Your task to perform on an android device: What's on the menu at Subway? Image 0: 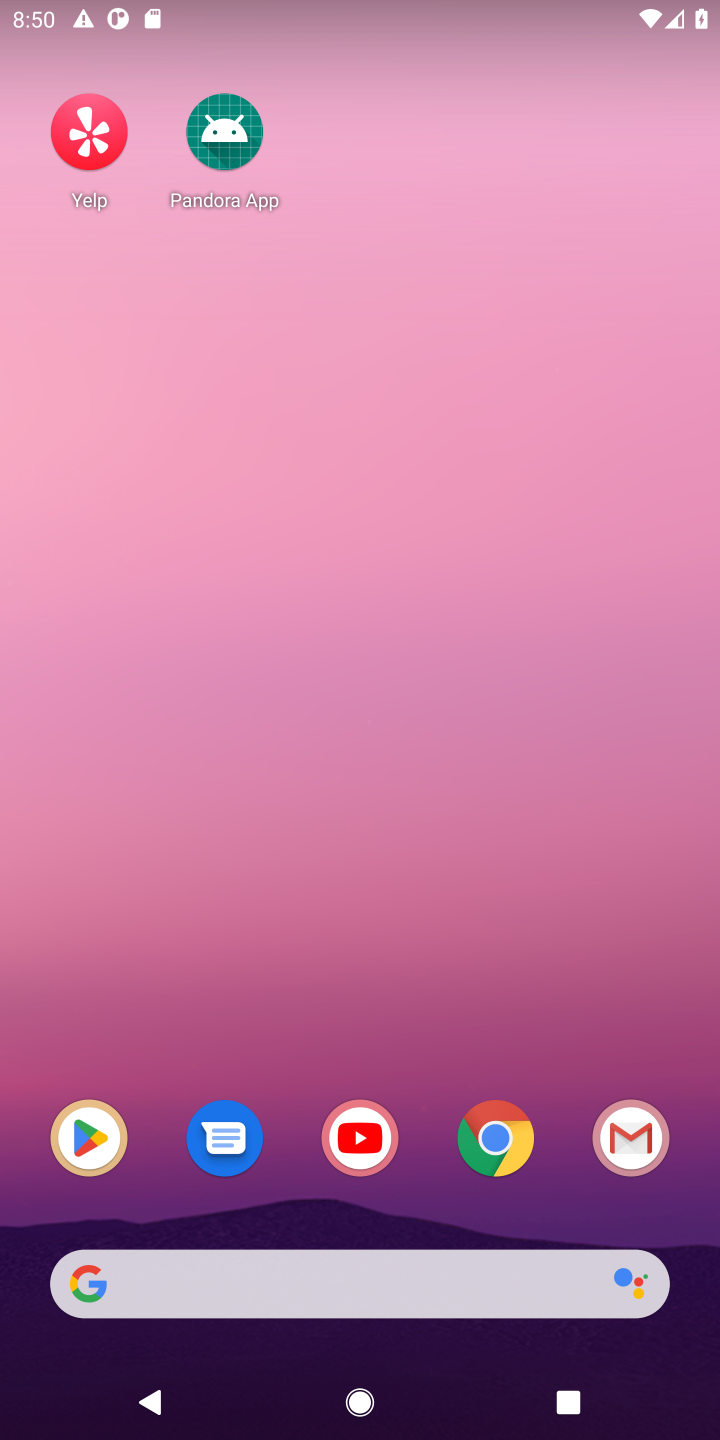
Step 0: click (253, 1288)
Your task to perform on an android device: What's on the menu at Subway? Image 1: 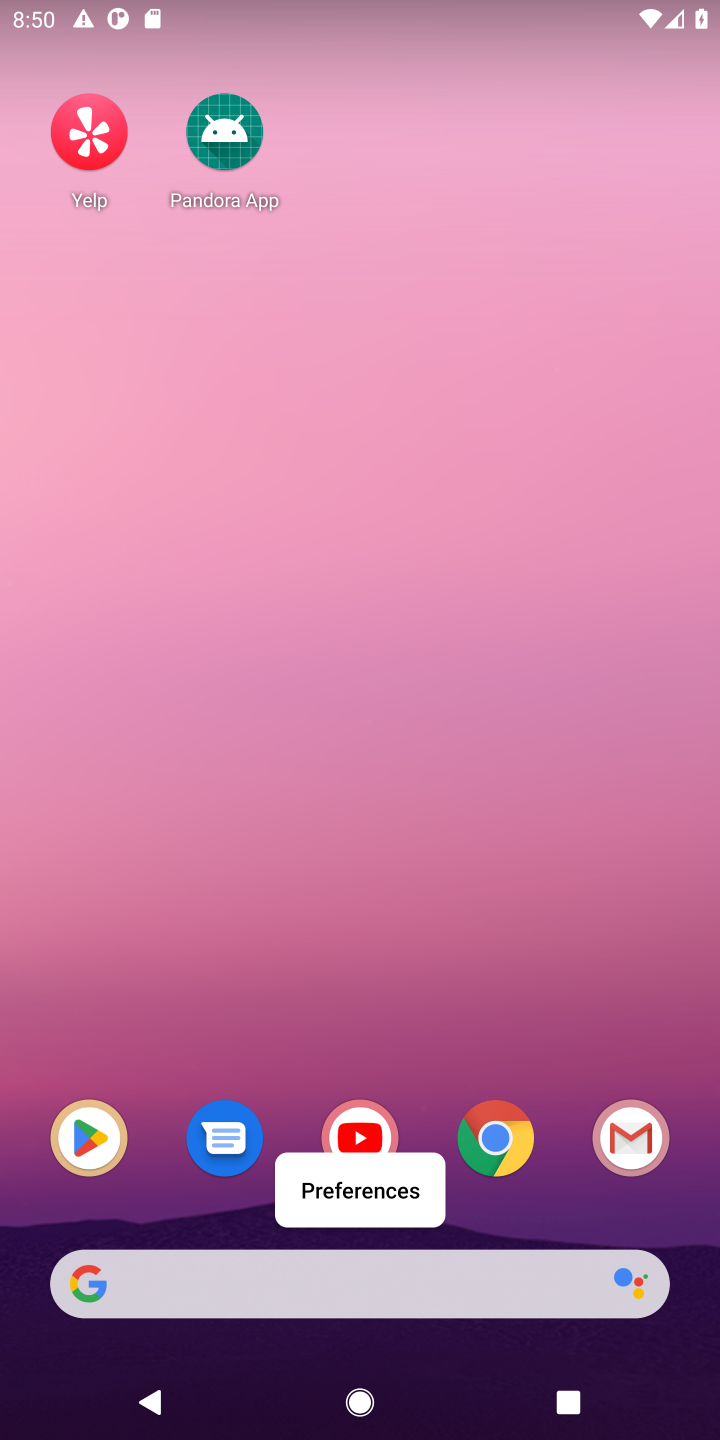
Step 1: click (347, 1284)
Your task to perform on an android device: What's on the menu at Subway? Image 2: 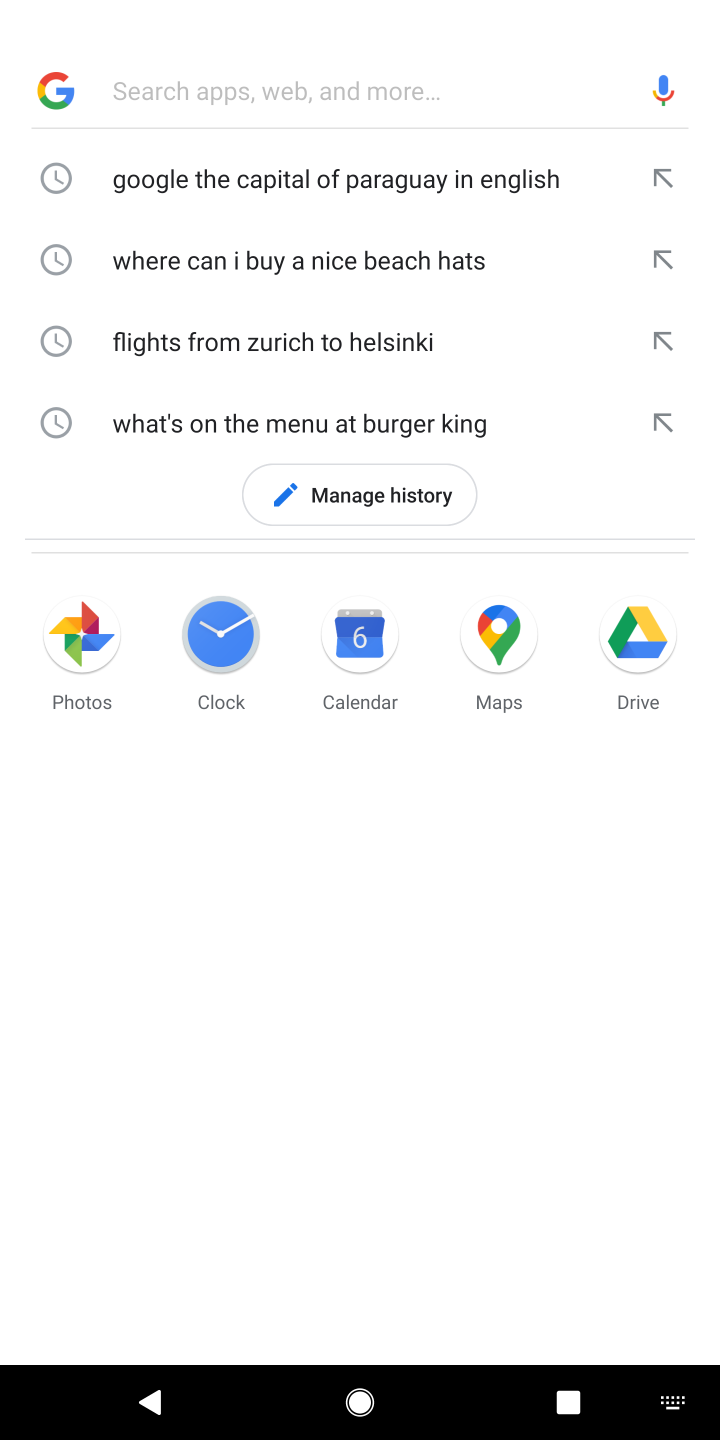
Step 2: type "What's on the menu at Subway"
Your task to perform on an android device: What's on the menu at Subway? Image 3: 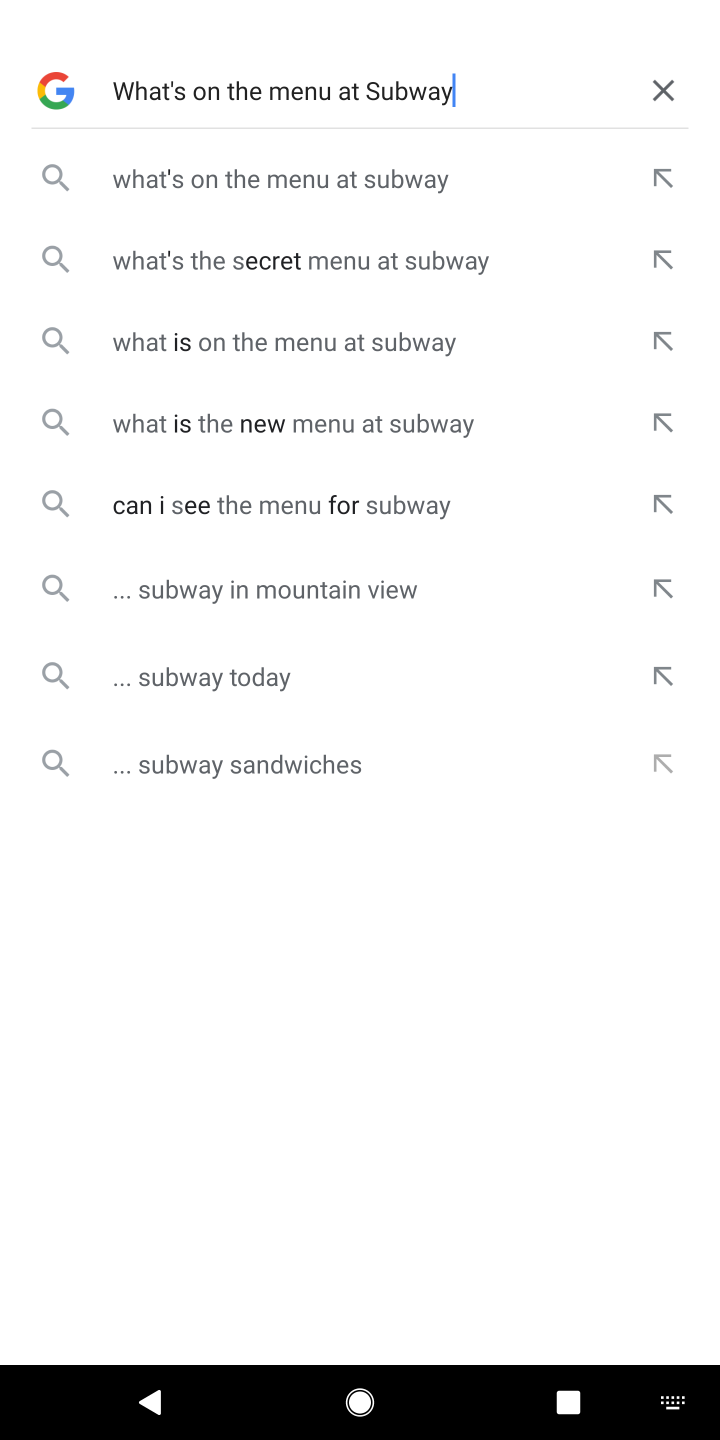
Step 3: click (352, 173)
Your task to perform on an android device: What's on the menu at Subway? Image 4: 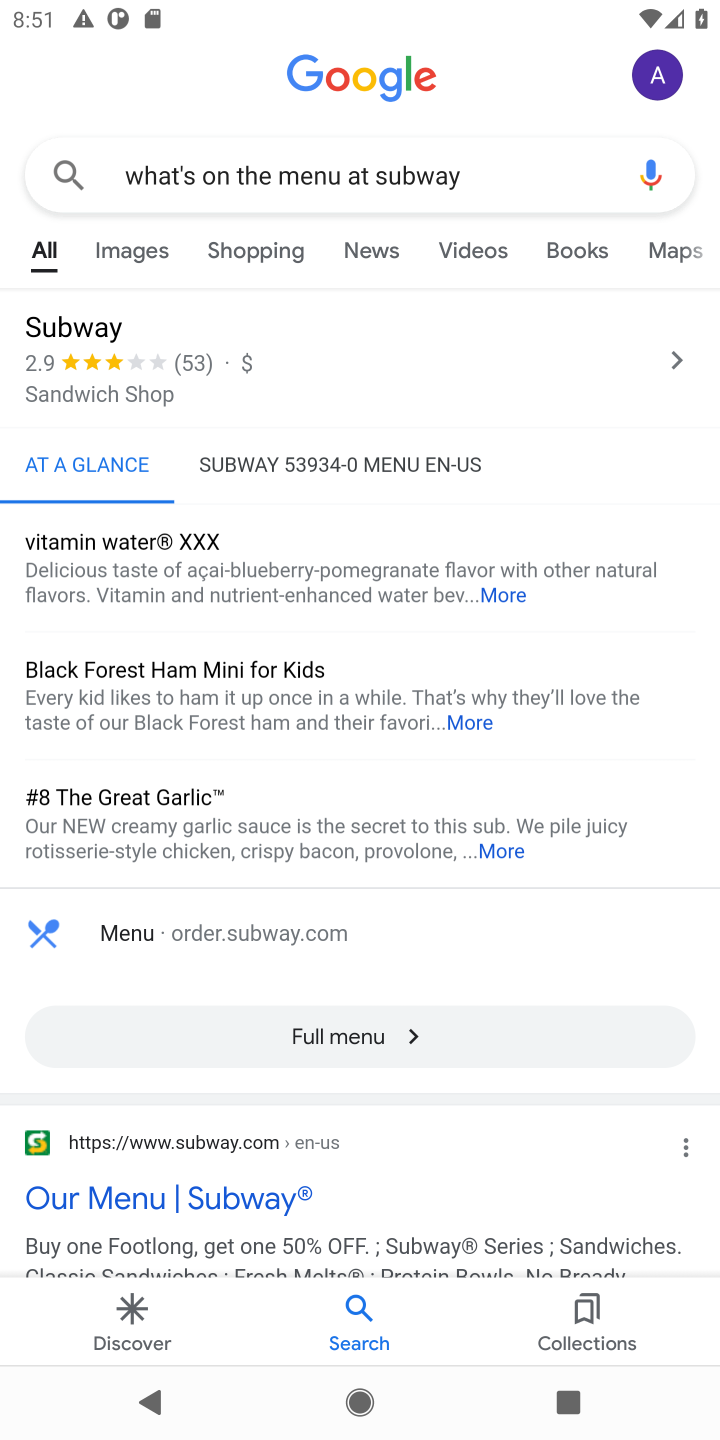
Step 4: drag from (527, 1030) to (523, 784)
Your task to perform on an android device: What's on the menu at Subway? Image 5: 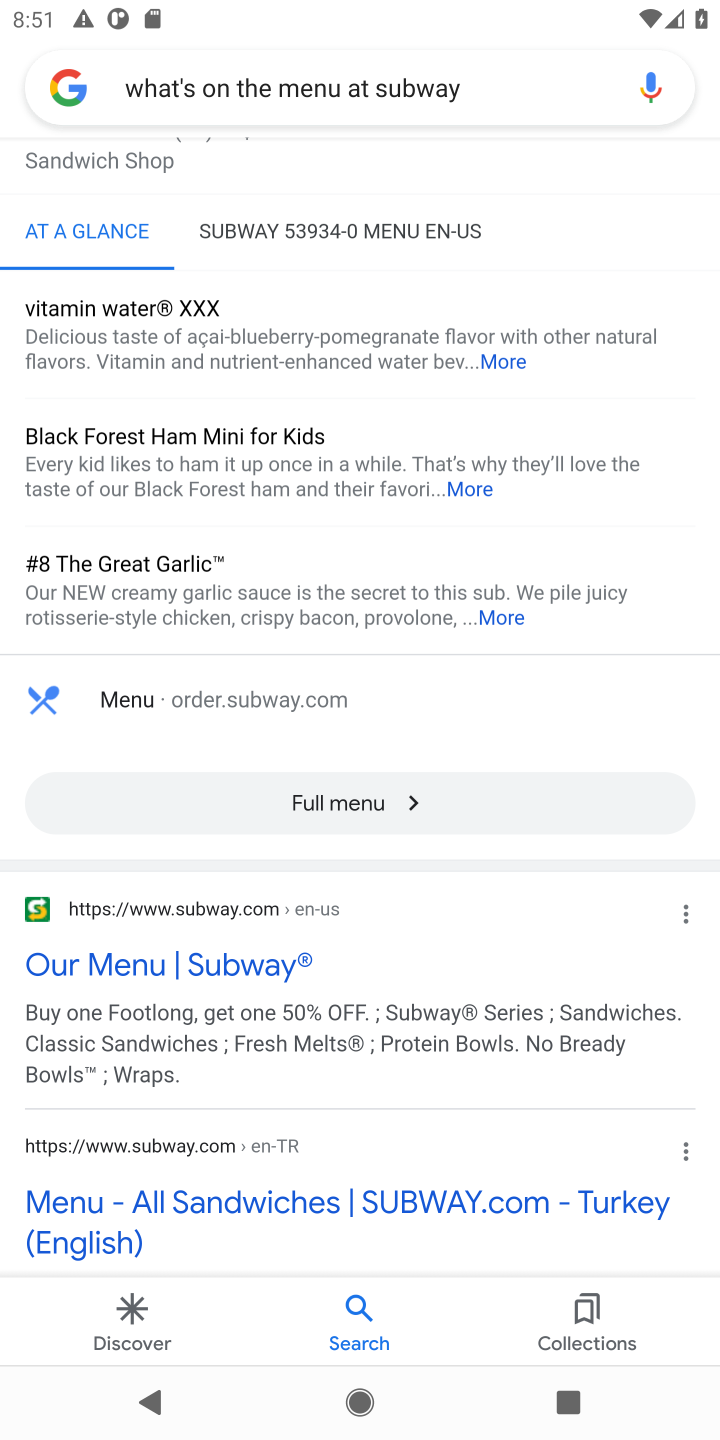
Step 5: click (122, 1144)
Your task to perform on an android device: What's on the menu at Subway? Image 6: 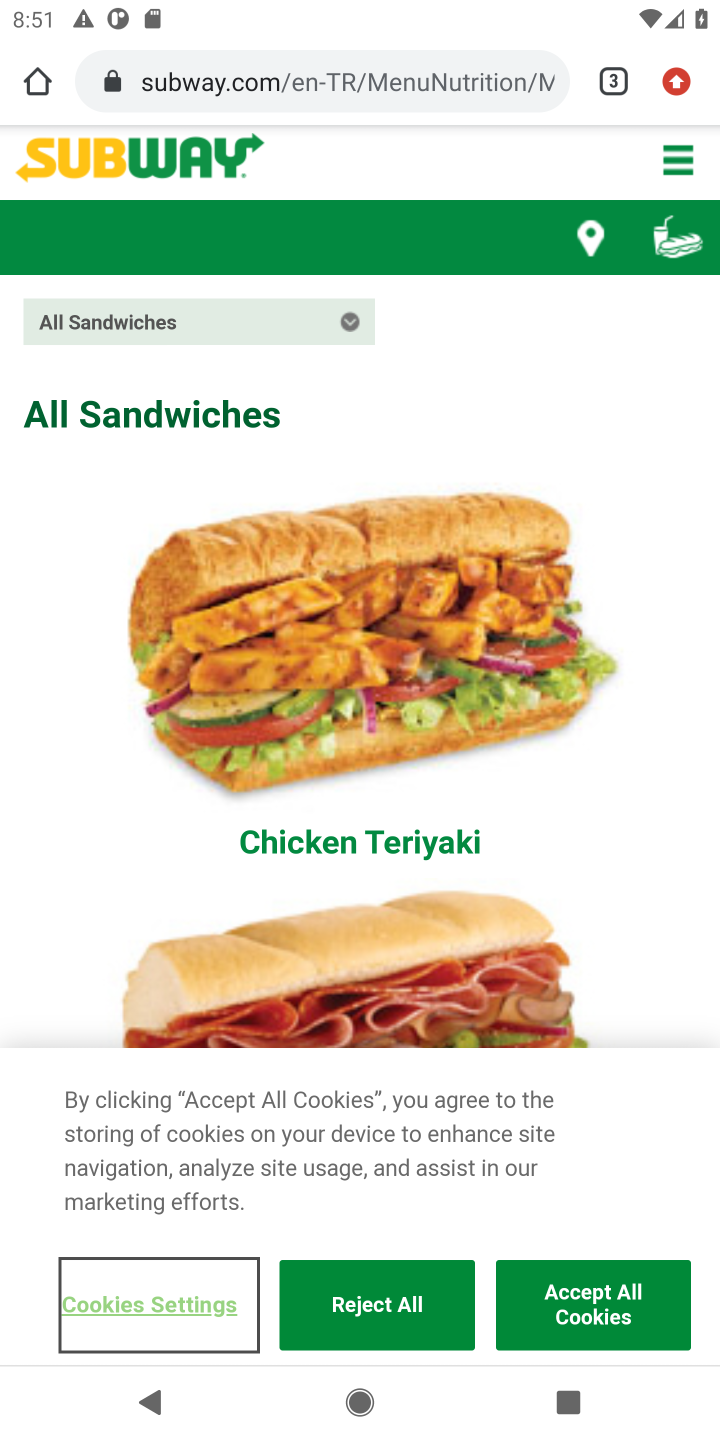
Step 6: task complete